Your task to perform on an android device: delete a single message in the gmail app Image 0: 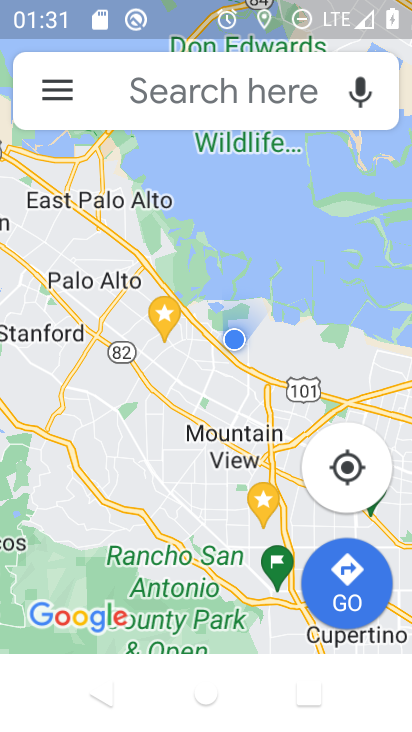
Step 0: press home button
Your task to perform on an android device: delete a single message in the gmail app Image 1: 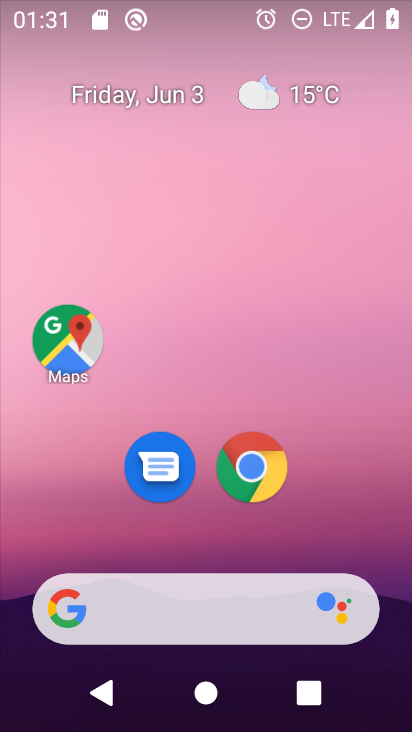
Step 1: drag from (400, 629) to (312, 90)
Your task to perform on an android device: delete a single message in the gmail app Image 2: 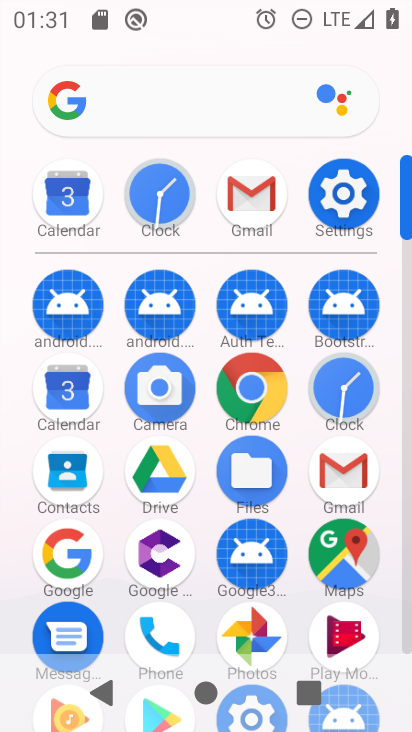
Step 2: click (403, 630)
Your task to perform on an android device: delete a single message in the gmail app Image 3: 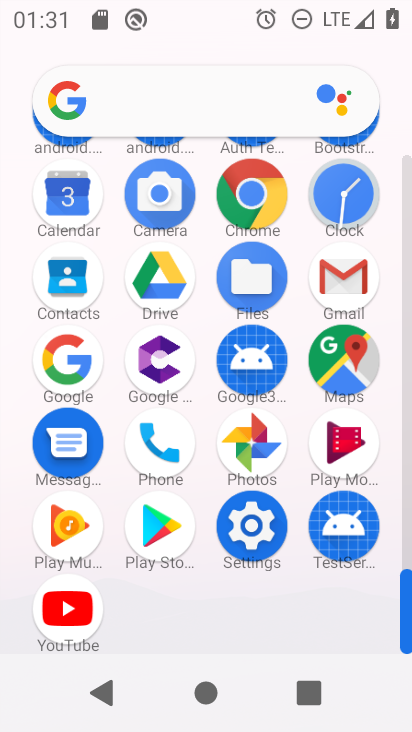
Step 3: click (342, 277)
Your task to perform on an android device: delete a single message in the gmail app Image 4: 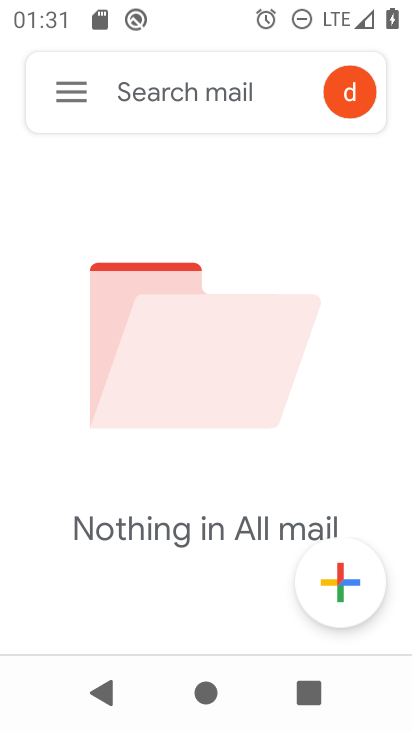
Step 4: click (66, 86)
Your task to perform on an android device: delete a single message in the gmail app Image 5: 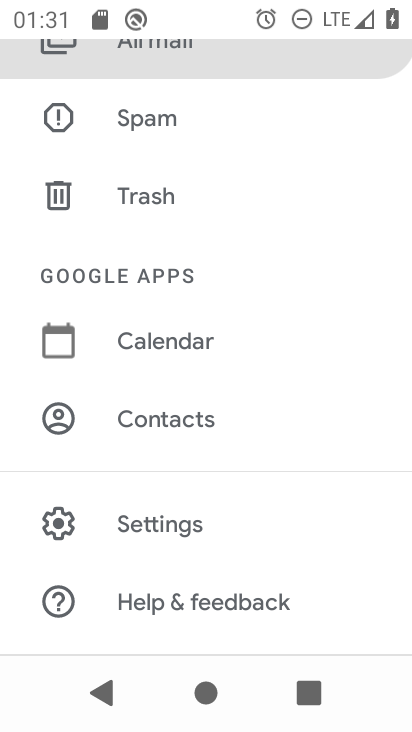
Step 5: drag from (218, 276) to (250, 531)
Your task to perform on an android device: delete a single message in the gmail app Image 6: 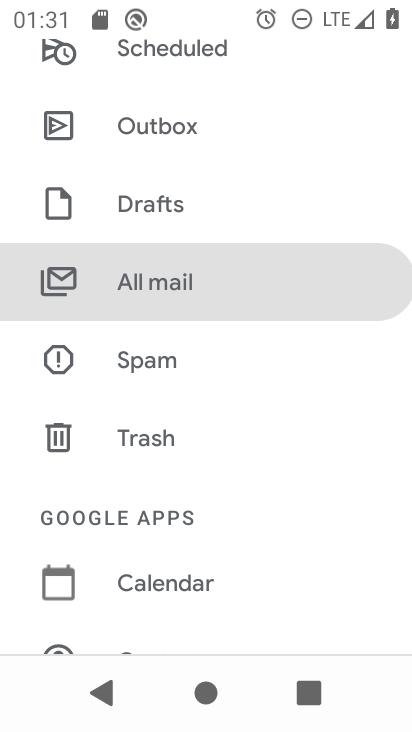
Step 6: click (163, 285)
Your task to perform on an android device: delete a single message in the gmail app Image 7: 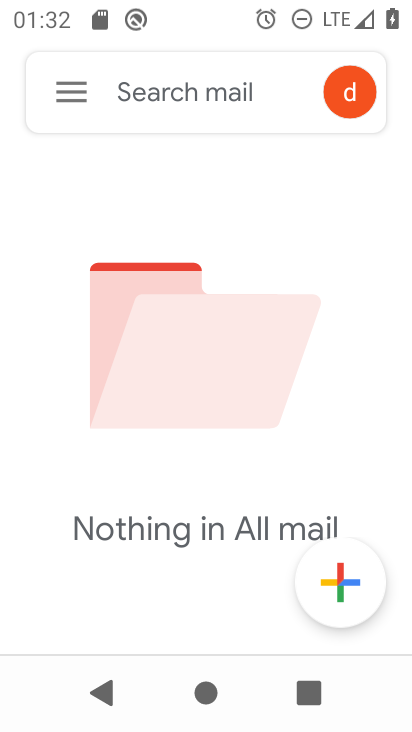
Step 7: task complete